Your task to perform on an android device: toggle improve location accuracy Image 0: 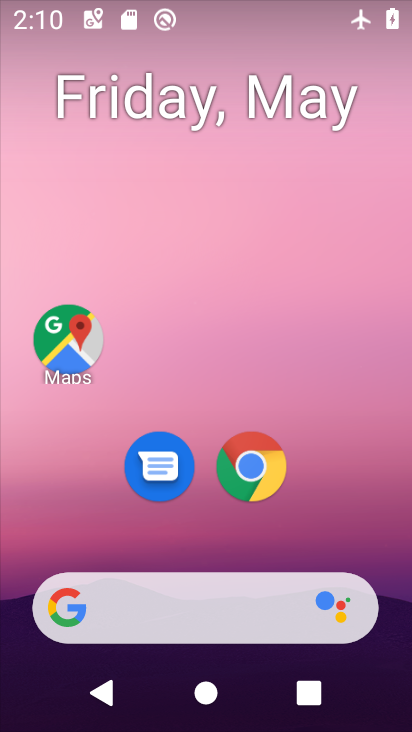
Step 0: drag from (330, 498) to (372, 29)
Your task to perform on an android device: toggle improve location accuracy Image 1: 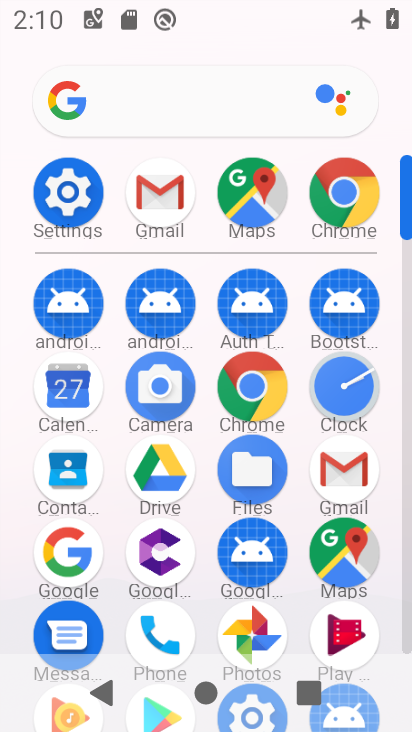
Step 1: click (82, 181)
Your task to perform on an android device: toggle improve location accuracy Image 2: 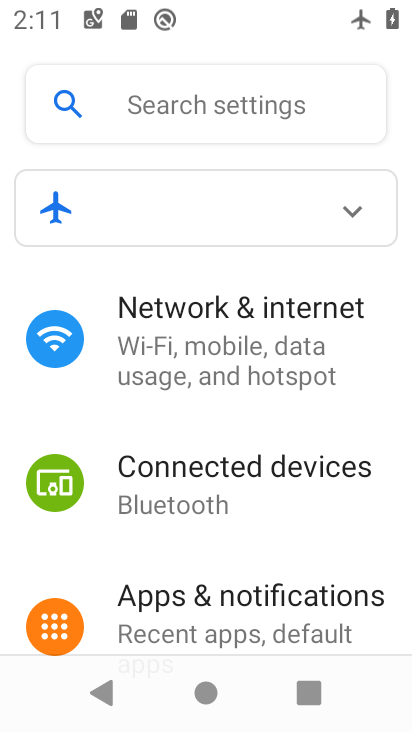
Step 2: drag from (281, 499) to (306, 116)
Your task to perform on an android device: toggle improve location accuracy Image 3: 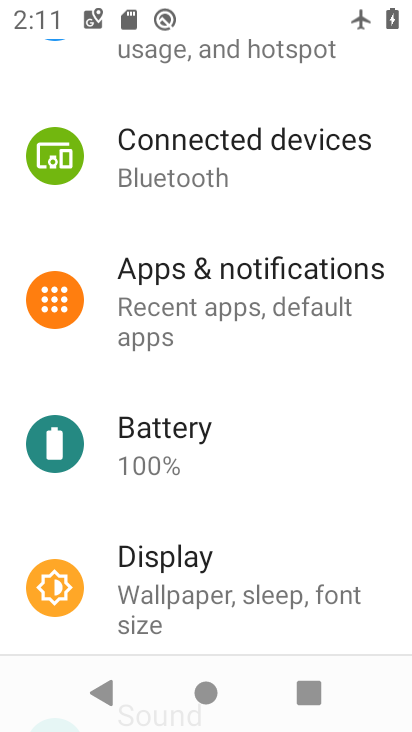
Step 3: drag from (288, 541) to (342, 66)
Your task to perform on an android device: toggle improve location accuracy Image 4: 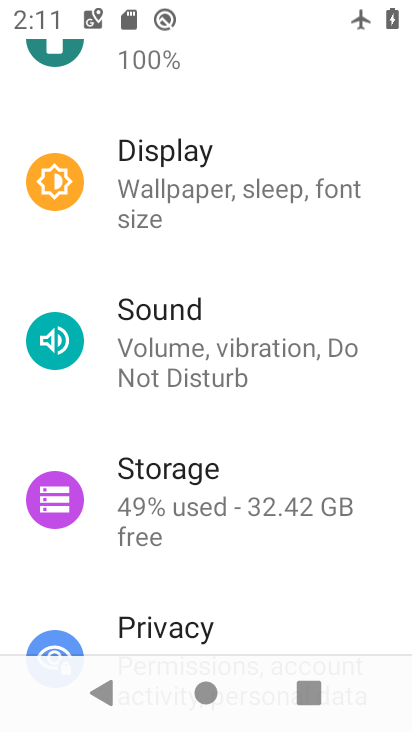
Step 4: drag from (287, 576) to (328, 129)
Your task to perform on an android device: toggle improve location accuracy Image 5: 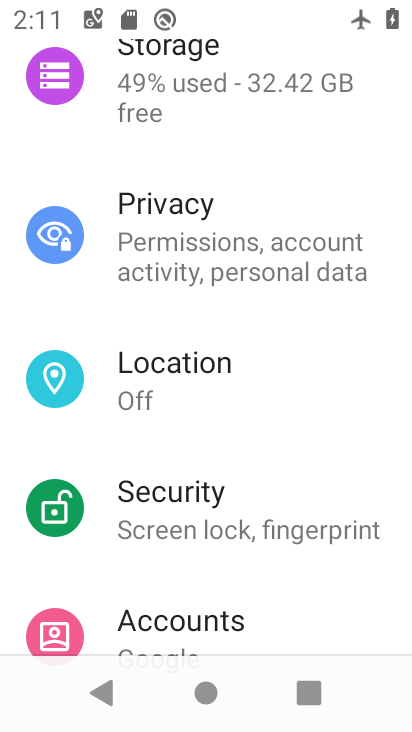
Step 5: click (132, 404)
Your task to perform on an android device: toggle improve location accuracy Image 6: 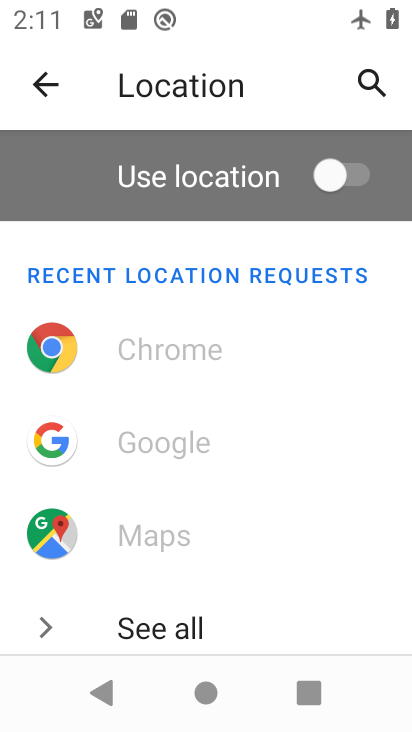
Step 6: drag from (207, 576) to (202, 216)
Your task to perform on an android device: toggle improve location accuracy Image 7: 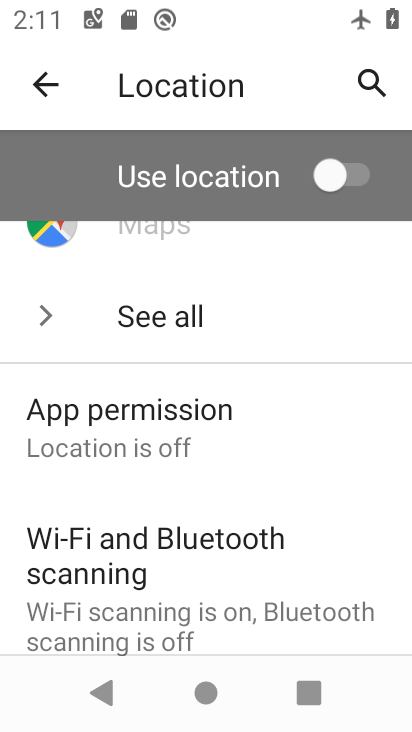
Step 7: drag from (243, 567) to (260, 189)
Your task to perform on an android device: toggle improve location accuracy Image 8: 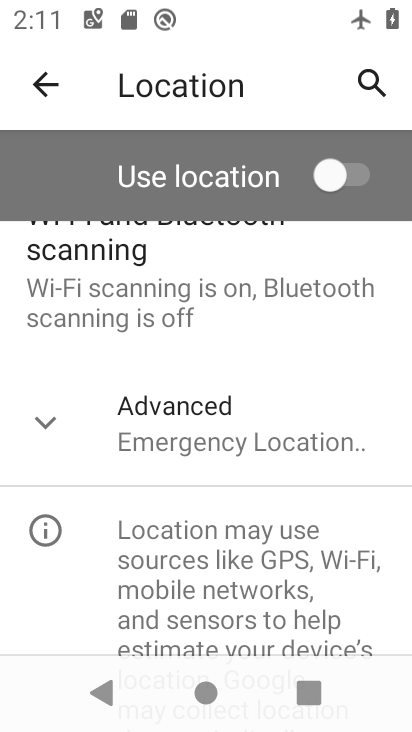
Step 8: click (240, 414)
Your task to perform on an android device: toggle improve location accuracy Image 9: 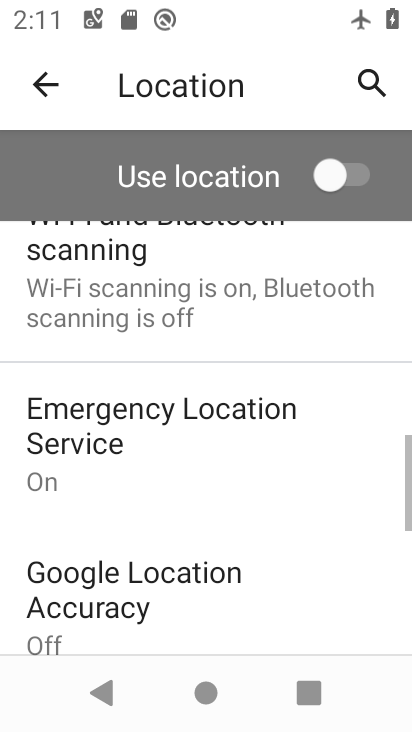
Step 9: drag from (173, 544) to (179, 226)
Your task to perform on an android device: toggle improve location accuracy Image 10: 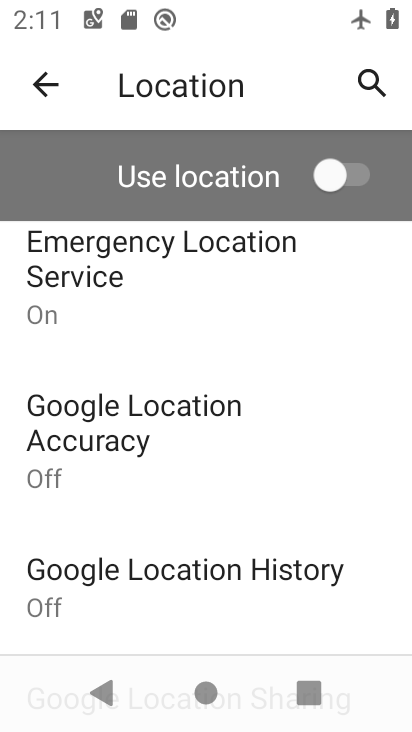
Step 10: click (89, 439)
Your task to perform on an android device: toggle improve location accuracy Image 11: 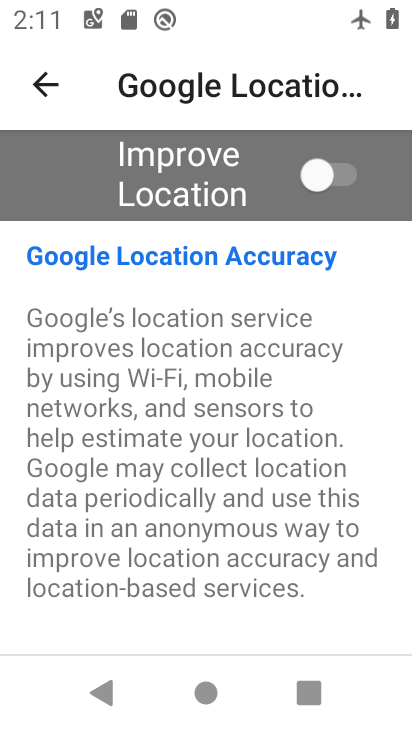
Step 11: click (334, 184)
Your task to perform on an android device: toggle improve location accuracy Image 12: 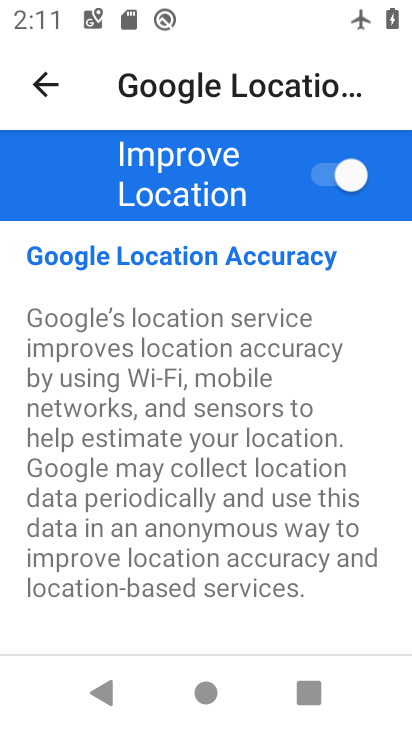
Step 12: task complete